Your task to perform on an android device: find photos in the google photos app Image 0: 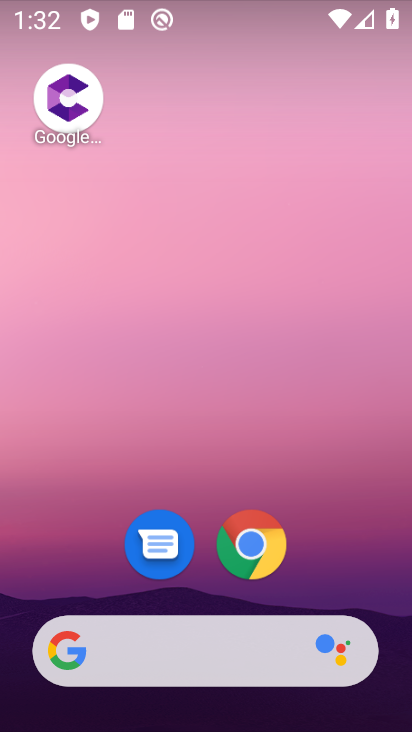
Step 0: drag from (331, 475) to (371, 34)
Your task to perform on an android device: find photos in the google photos app Image 1: 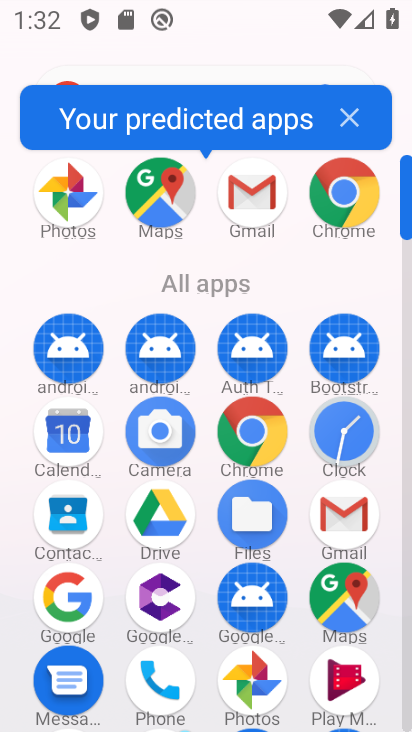
Step 1: click (241, 669)
Your task to perform on an android device: find photos in the google photos app Image 2: 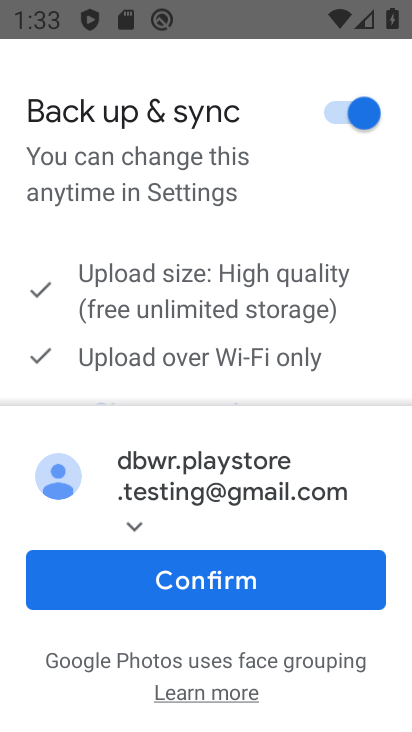
Step 2: click (219, 565)
Your task to perform on an android device: find photos in the google photos app Image 3: 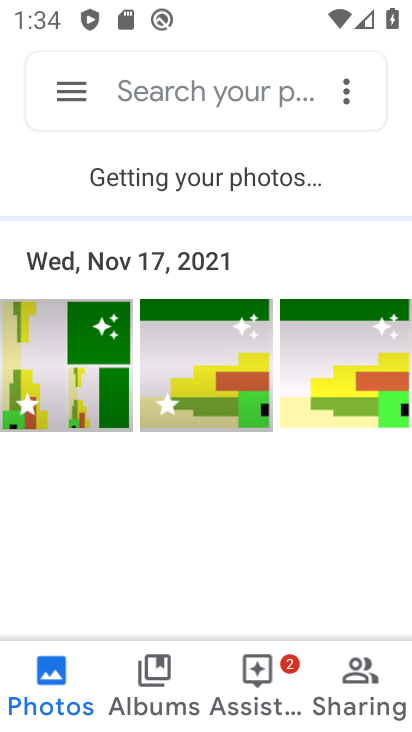
Step 3: click (77, 365)
Your task to perform on an android device: find photos in the google photos app Image 4: 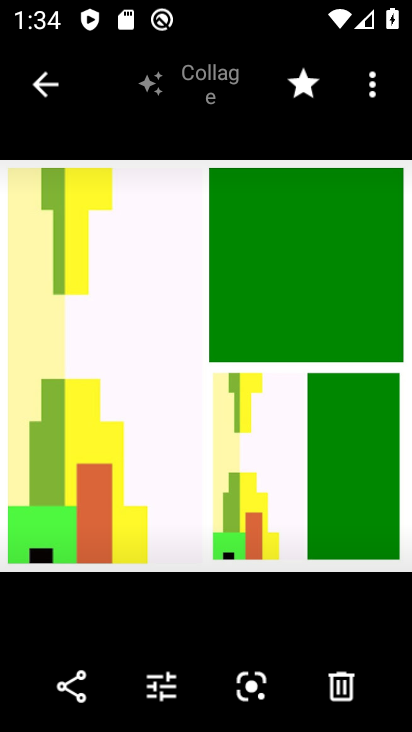
Step 4: task complete